Your task to perform on an android device: move an email to a new category in the gmail app Image 0: 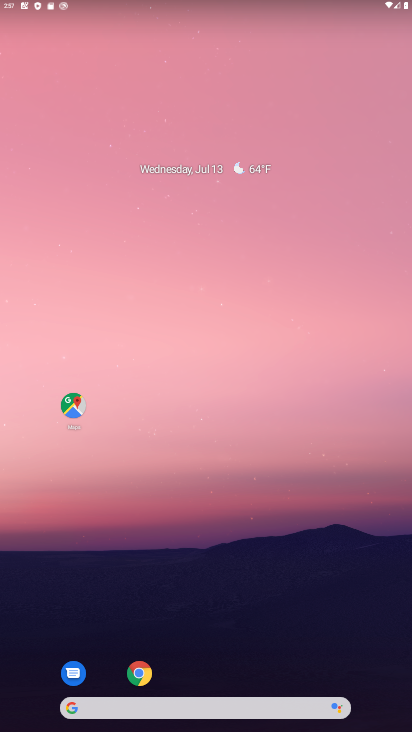
Step 0: drag from (221, 661) to (261, 175)
Your task to perform on an android device: move an email to a new category in the gmail app Image 1: 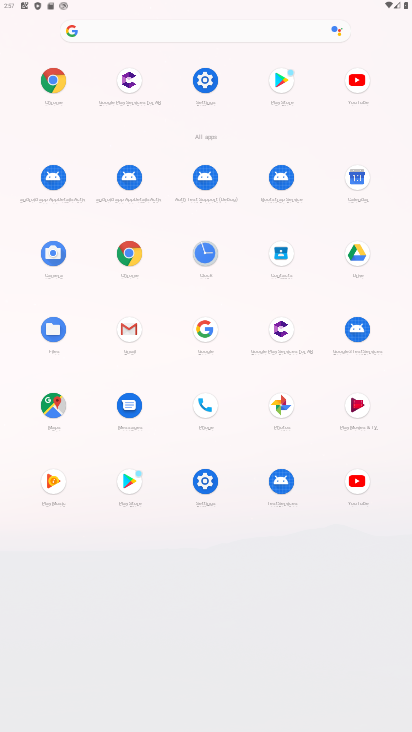
Step 1: click (125, 319)
Your task to perform on an android device: move an email to a new category in the gmail app Image 2: 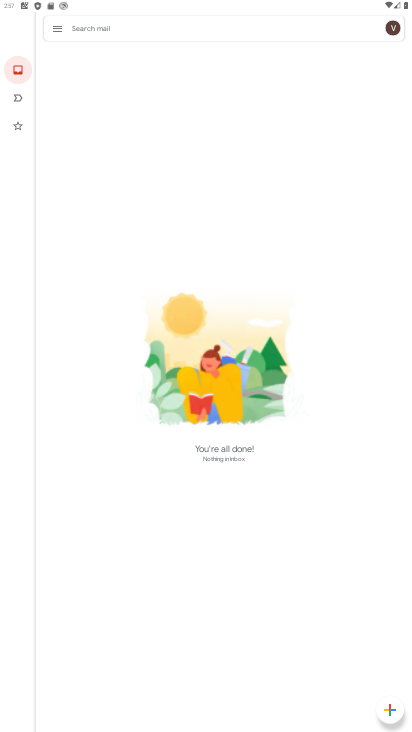
Step 2: task complete